Your task to perform on an android device: show emergency info Image 0: 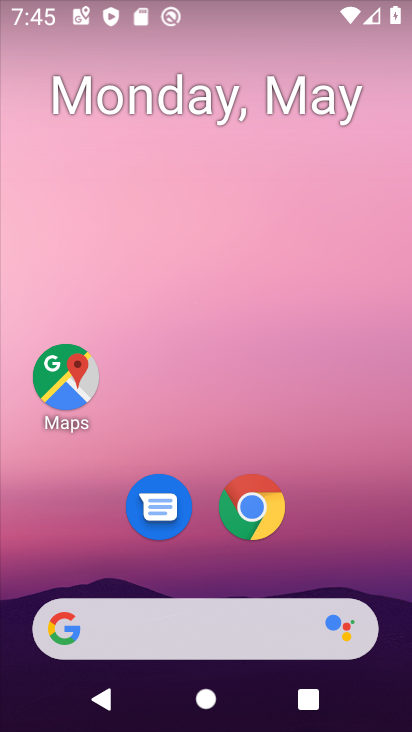
Step 0: press home button
Your task to perform on an android device: show emergency info Image 1: 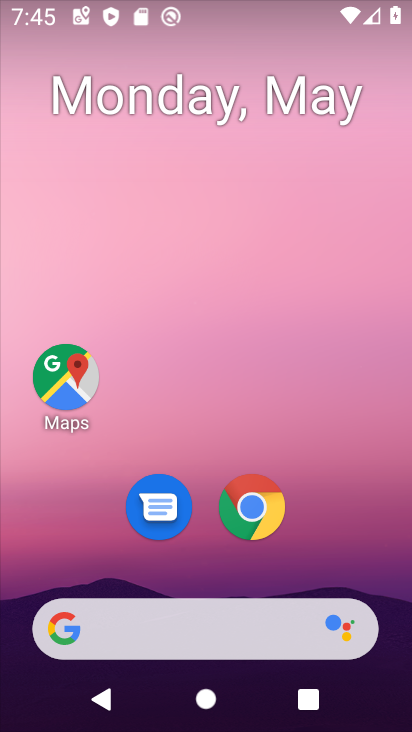
Step 1: drag from (213, 562) to (231, 51)
Your task to perform on an android device: show emergency info Image 2: 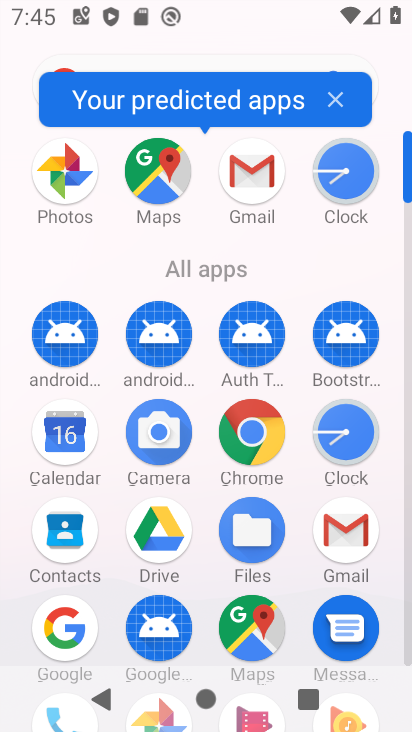
Step 2: drag from (201, 584) to (228, 98)
Your task to perform on an android device: show emergency info Image 3: 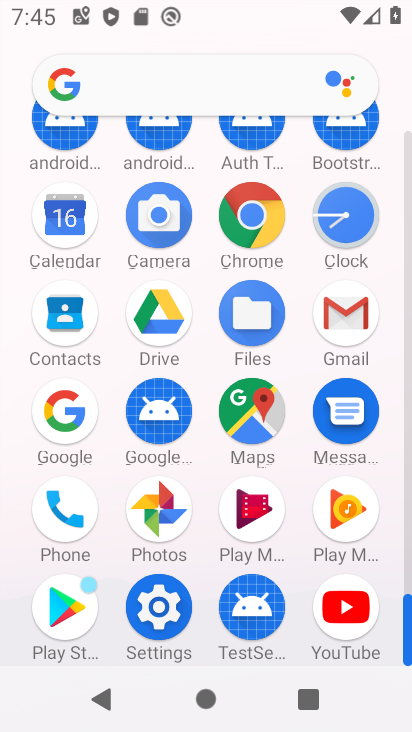
Step 3: click (158, 603)
Your task to perform on an android device: show emergency info Image 4: 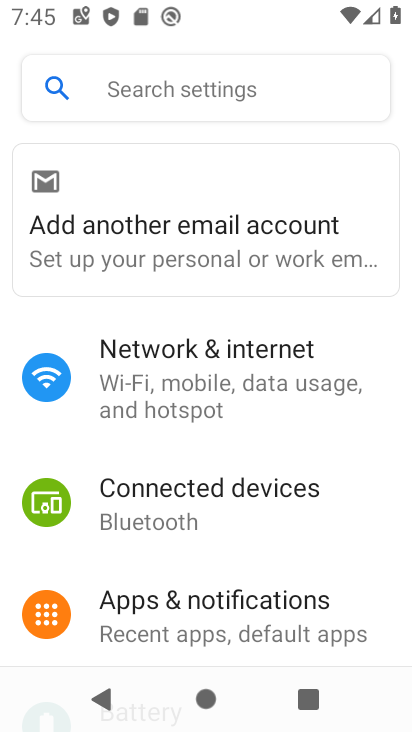
Step 4: drag from (204, 610) to (284, 125)
Your task to perform on an android device: show emergency info Image 5: 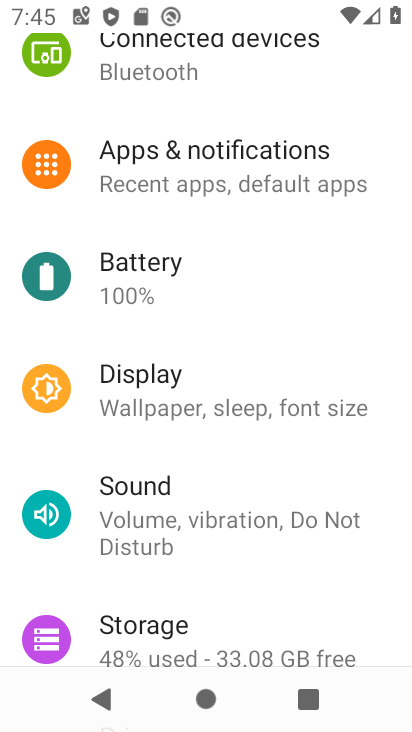
Step 5: drag from (233, 630) to (280, 83)
Your task to perform on an android device: show emergency info Image 6: 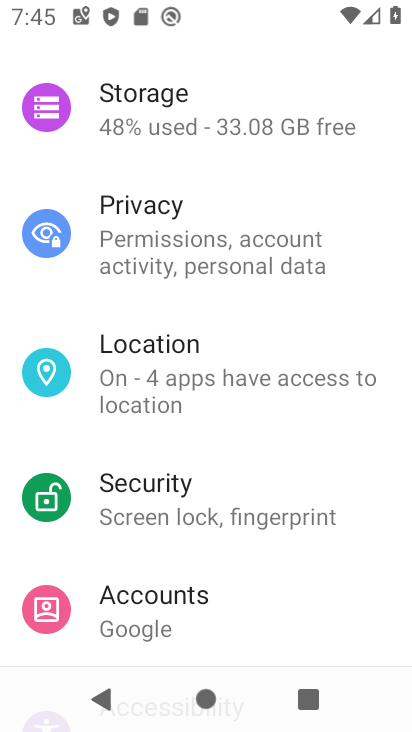
Step 6: drag from (214, 634) to (233, 147)
Your task to perform on an android device: show emergency info Image 7: 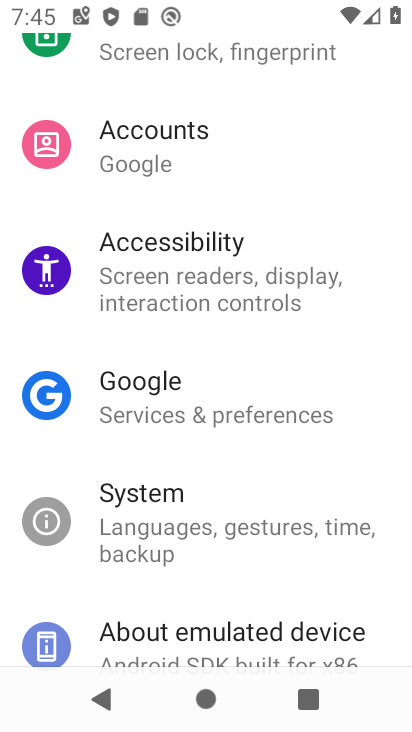
Step 7: click (233, 633)
Your task to perform on an android device: show emergency info Image 8: 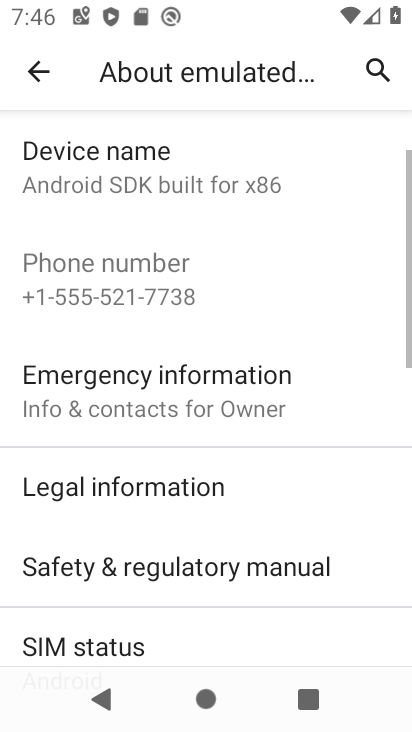
Step 8: click (283, 397)
Your task to perform on an android device: show emergency info Image 9: 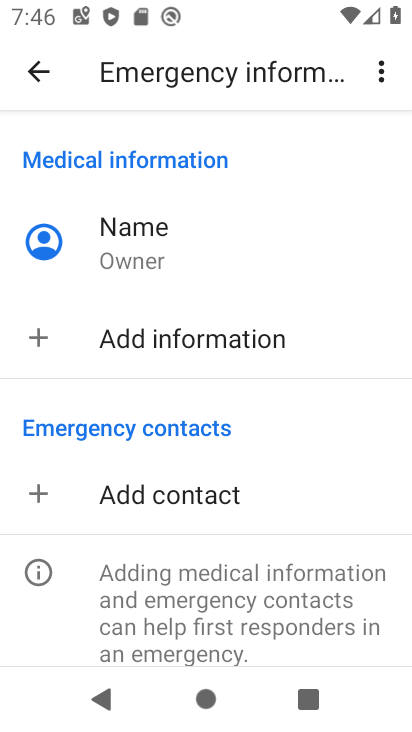
Step 9: task complete